Your task to perform on an android device: check out phone information Image 0: 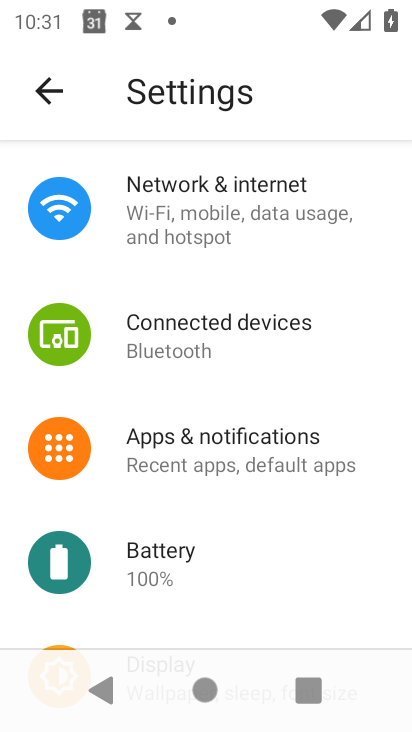
Step 0: drag from (216, 571) to (241, 20)
Your task to perform on an android device: check out phone information Image 1: 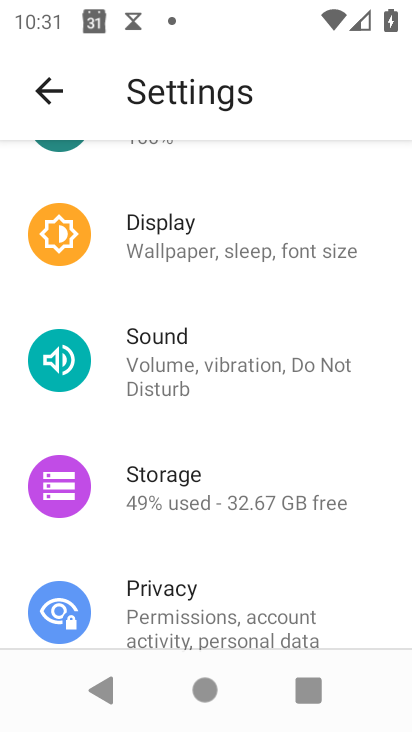
Step 1: drag from (238, 581) to (245, 142)
Your task to perform on an android device: check out phone information Image 2: 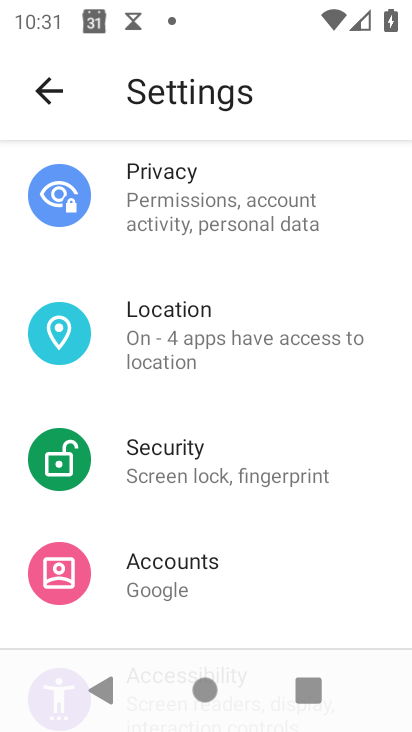
Step 2: drag from (193, 589) to (237, 155)
Your task to perform on an android device: check out phone information Image 3: 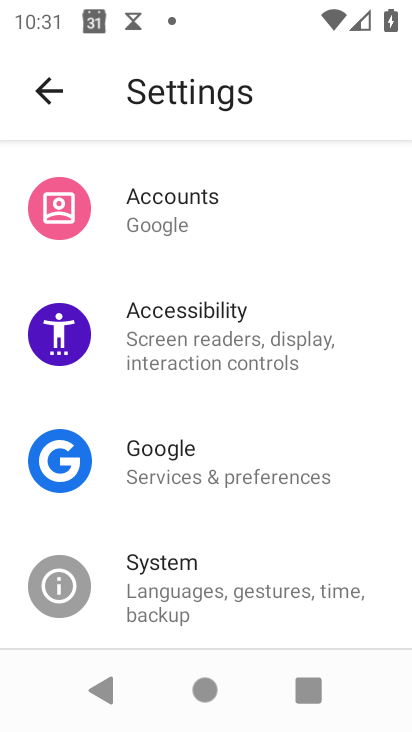
Step 3: drag from (293, 605) to (309, 290)
Your task to perform on an android device: check out phone information Image 4: 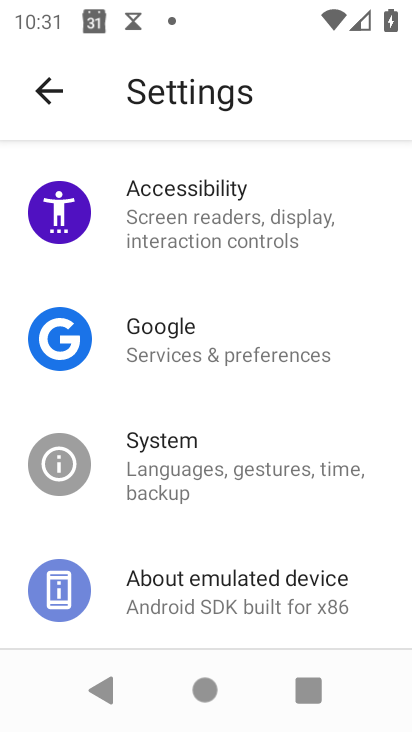
Step 4: click (270, 602)
Your task to perform on an android device: check out phone information Image 5: 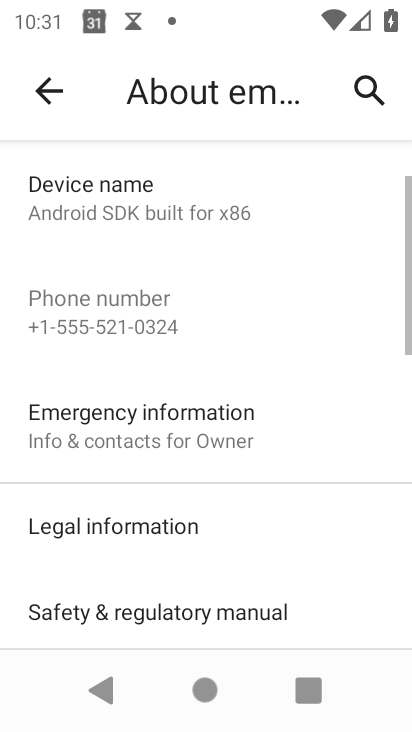
Step 5: task complete